Your task to perform on an android device: toggle data saver in the chrome app Image 0: 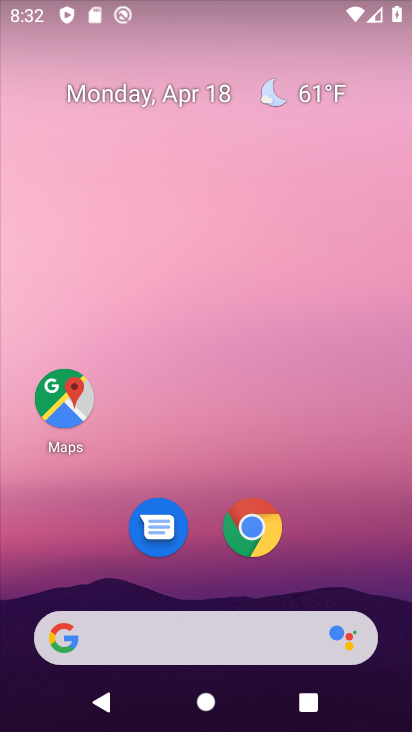
Step 0: click (252, 535)
Your task to perform on an android device: toggle data saver in the chrome app Image 1: 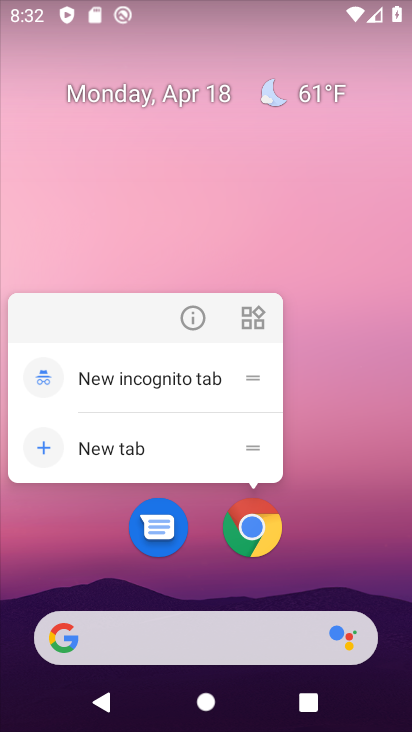
Step 1: click (259, 532)
Your task to perform on an android device: toggle data saver in the chrome app Image 2: 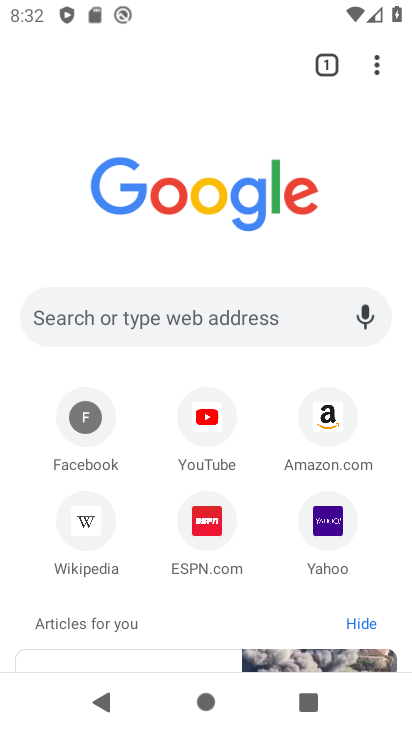
Step 2: click (378, 64)
Your task to perform on an android device: toggle data saver in the chrome app Image 3: 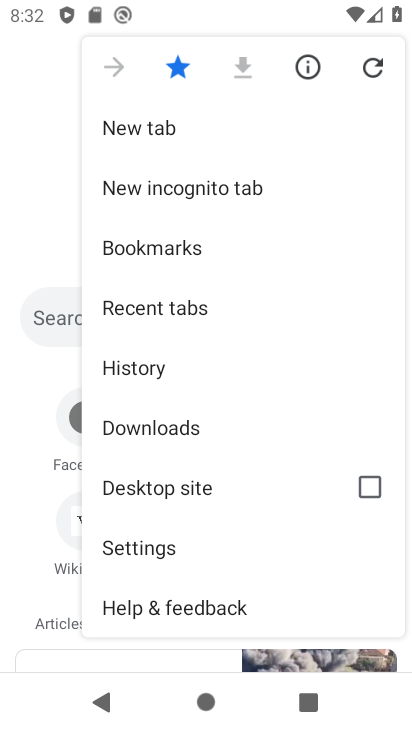
Step 3: click (160, 548)
Your task to perform on an android device: toggle data saver in the chrome app Image 4: 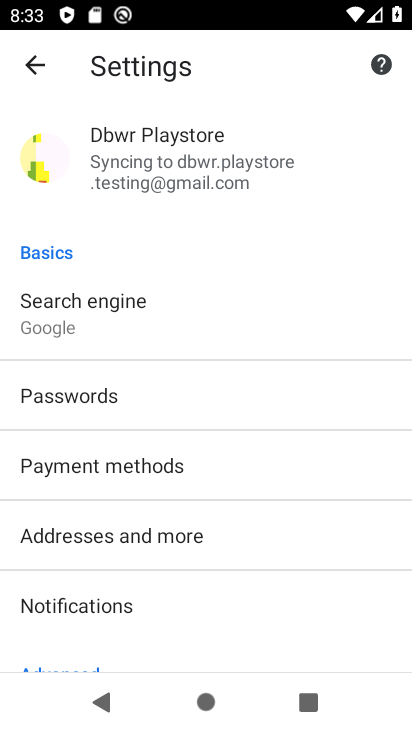
Step 4: drag from (184, 495) to (184, 221)
Your task to perform on an android device: toggle data saver in the chrome app Image 5: 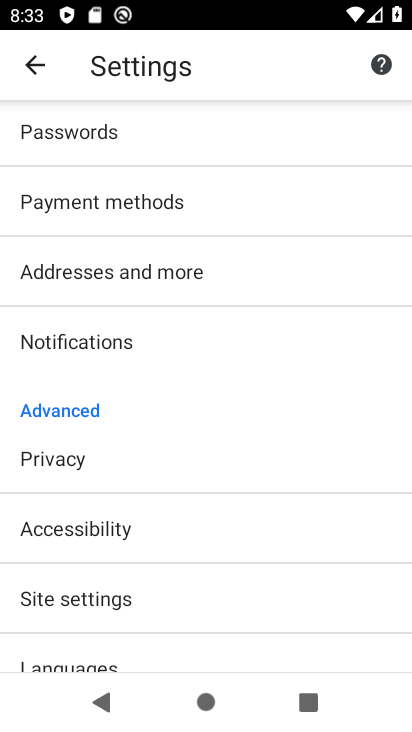
Step 5: drag from (224, 606) to (223, 325)
Your task to perform on an android device: toggle data saver in the chrome app Image 6: 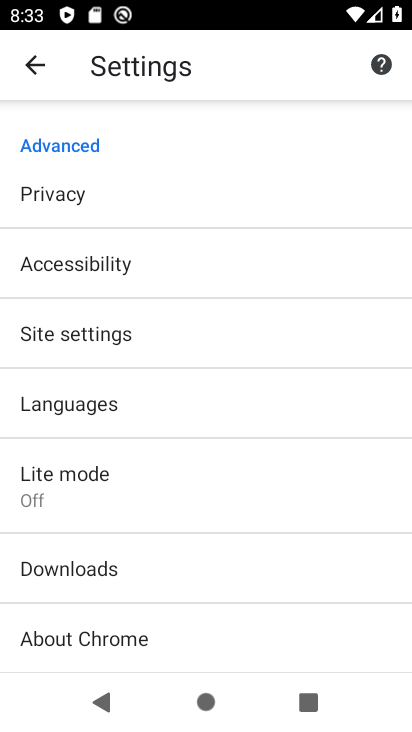
Step 6: click (35, 488)
Your task to perform on an android device: toggle data saver in the chrome app Image 7: 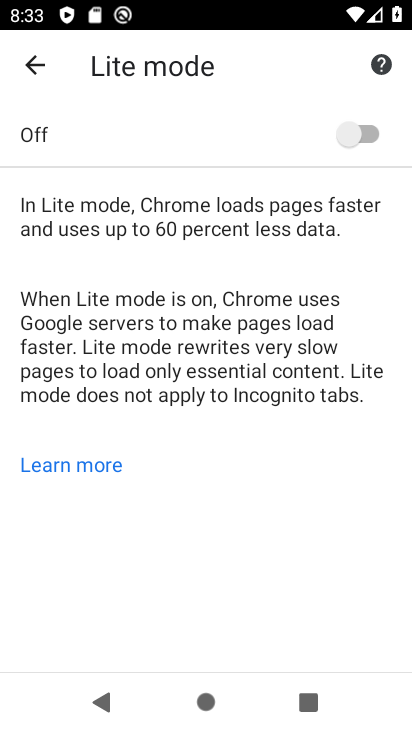
Step 7: click (343, 141)
Your task to perform on an android device: toggle data saver in the chrome app Image 8: 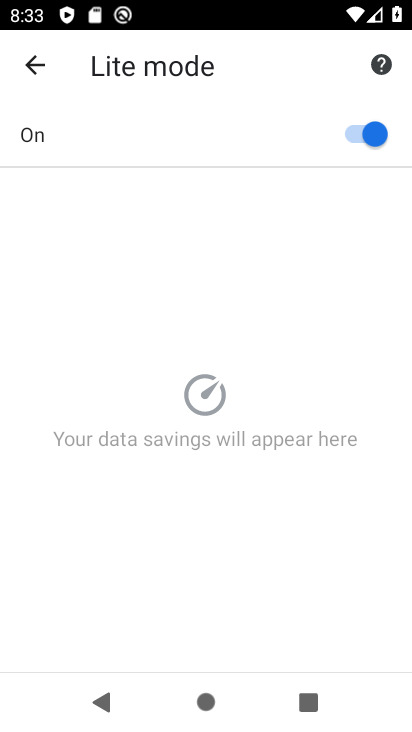
Step 8: task complete